Your task to perform on an android device: Turn off the flashlight Image 0: 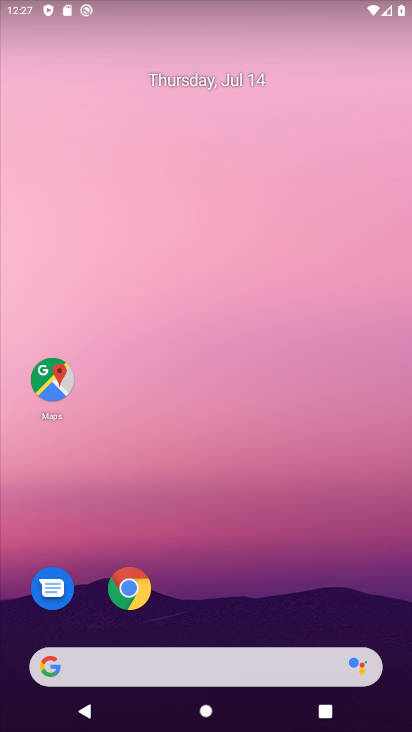
Step 0: drag from (267, 604) to (281, 282)
Your task to perform on an android device: Turn off the flashlight Image 1: 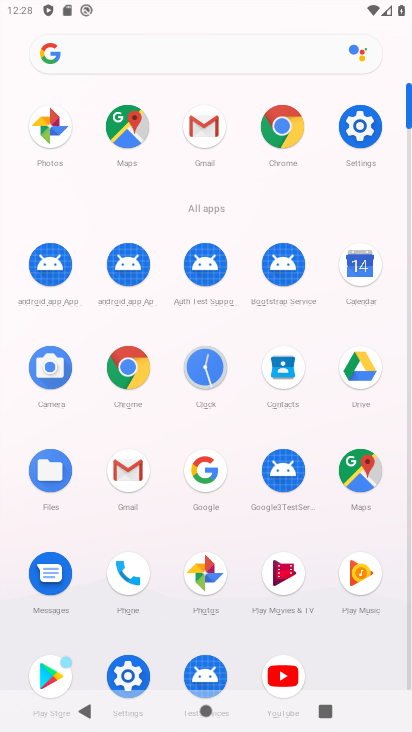
Step 1: click (359, 113)
Your task to perform on an android device: Turn off the flashlight Image 2: 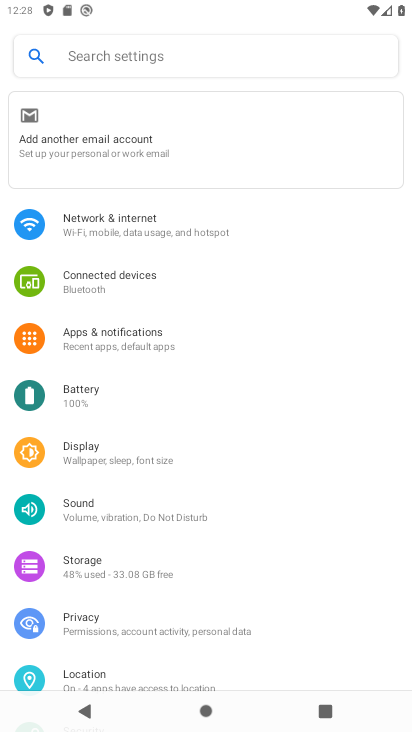
Step 2: task complete